Your task to perform on an android device: turn off priority inbox in the gmail app Image 0: 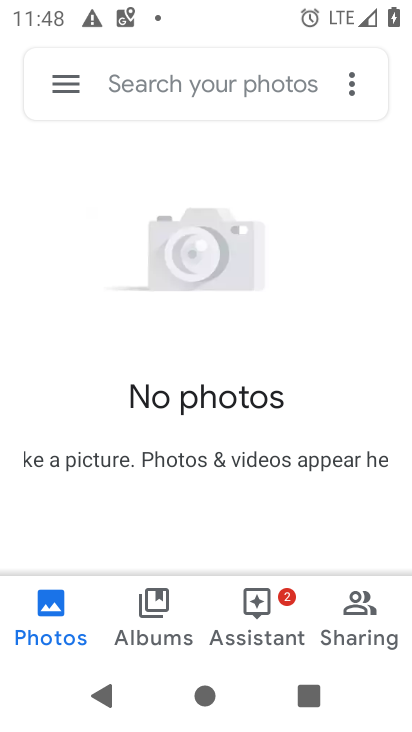
Step 0: press back button
Your task to perform on an android device: turn off priority inbox in the gmail app Image 1: 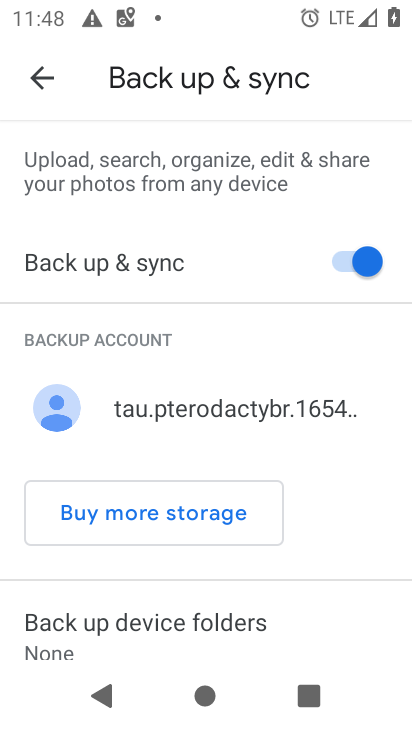
Step 1: press back button
Your task to perform on an android device: turn off priority inbox in the gmail app Image 2: 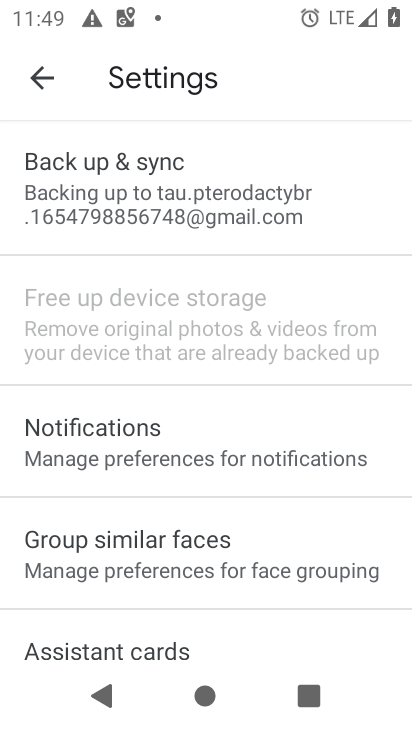
Step 2: press back button
Your task to perform on an android device: turn off priority inbox in the gmail app Image 3: 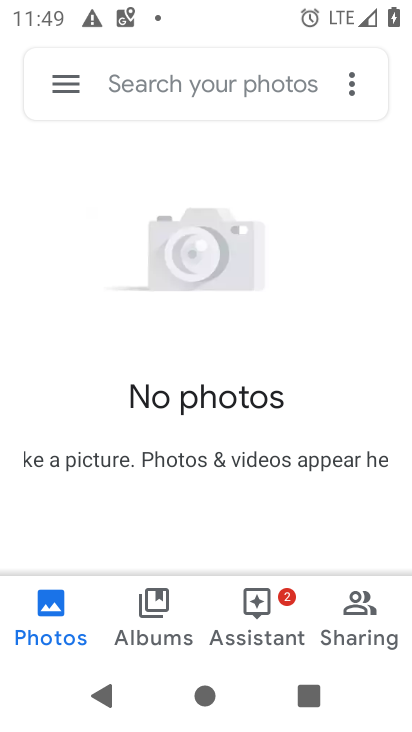
Step 3: press home button
Your task to perform on an android device: turn off priority inbox in the gmail app Image 4: 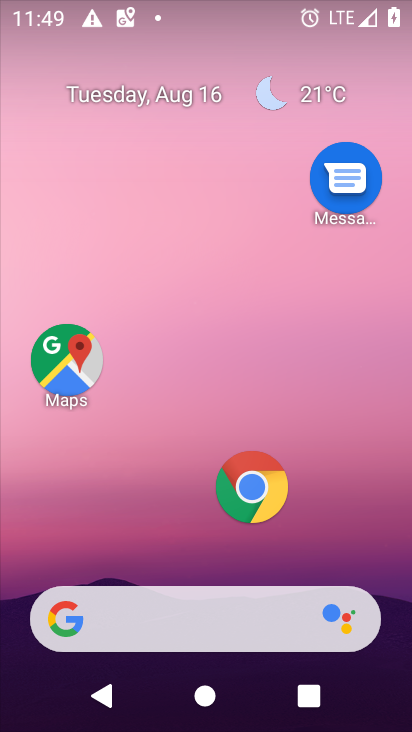
Step 4: drag from (278, 38) to (288, 0)
Your task to perform on an android device: turn off priority inbox in the gmail app Image 5: 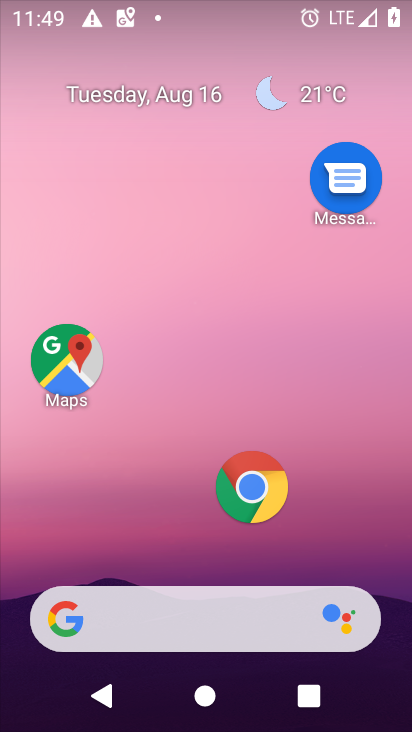
Step 5: drag from (129, 540) to (262, 3)
Your task to perform on an android device: turn off priority inbox in the gmail app Image 6: 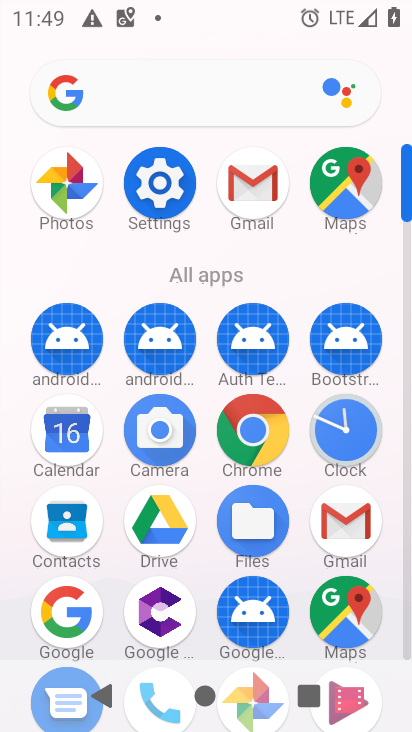
Step 6: click (259, 182)
Your task to perform on an android device: turn off priority inbox in the gmail app Image 7: 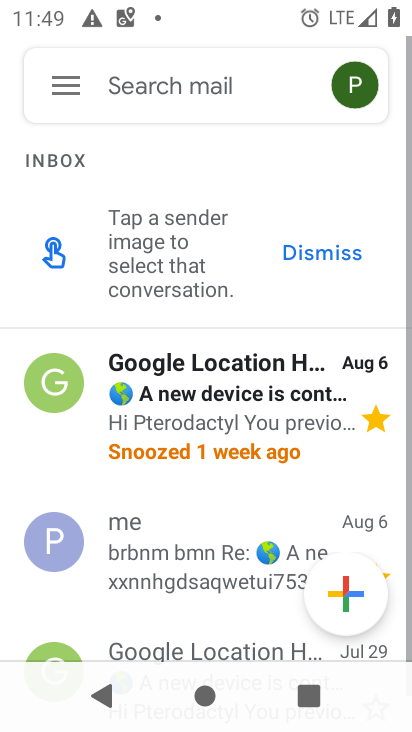
Step 7: click (58, 77)
Your task to perform on an android device: turn off priority inbox in the gmail app Image 8: 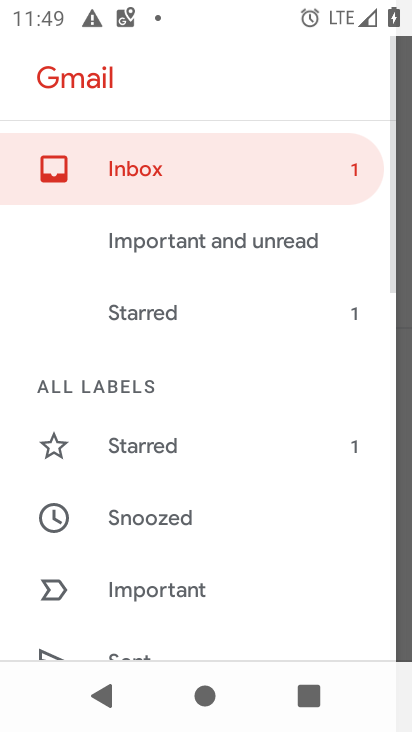
Step 8: drag from (245, 379) to (334, 49)
Your task to perform on an android device: turn off priority inbox in the gmail app Image 9: 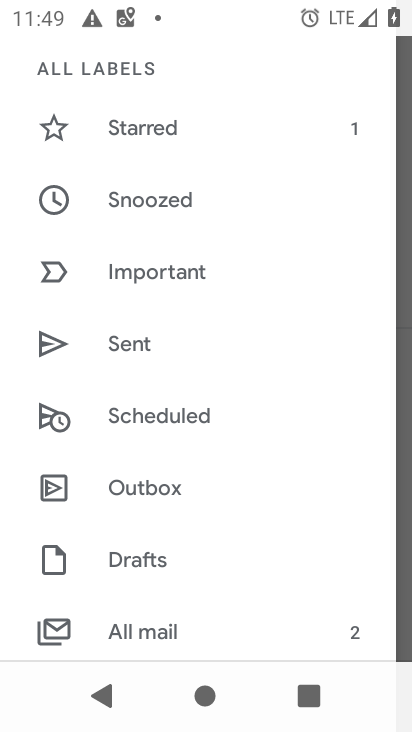
Step 9: drag from (235, 489) to (336, 9)
Your task to perform on an android device: turn off priority inbox in the gmail app Image 10: 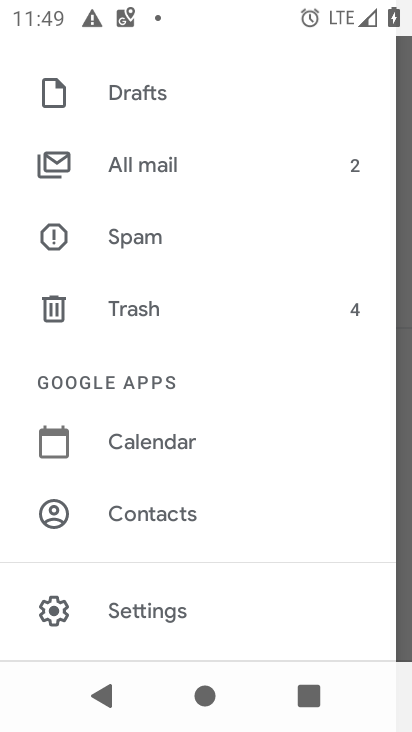
Step 10: click (198, 604)
Your task to perform on an android device: turn off priority inbox in the gmail app Image 11: 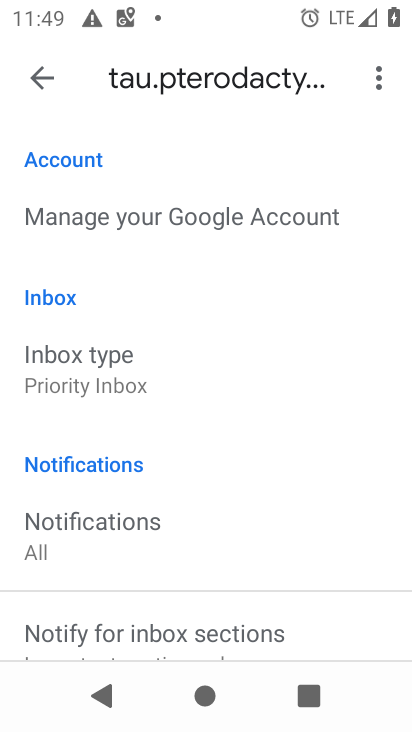
Step 11: click (109, 367)
Your task to perform on an android device: turn off priority inbox in the gmail app Image 12: 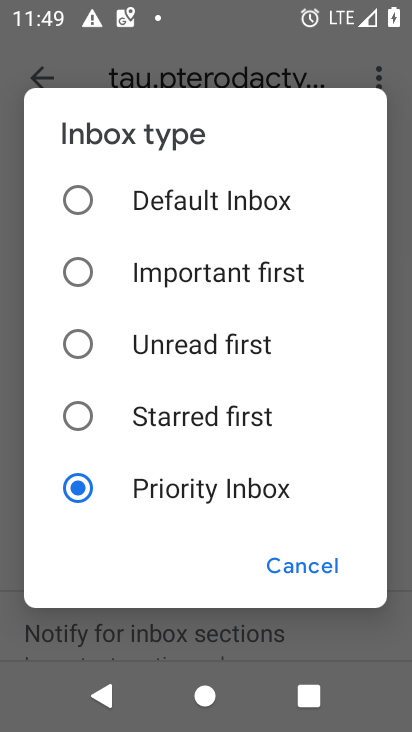
Step 12: click (162, 189)
Your task to perform on an android device: turn off priority inbox in the gmail app Image 13: 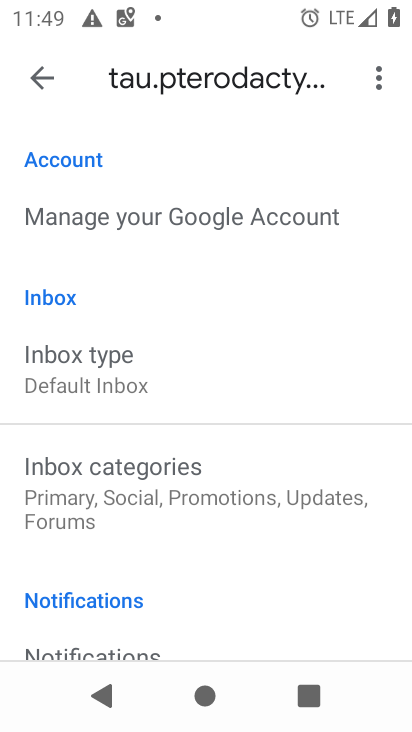
Step 13: task complete